Your task to perform on an android device: Go to accessibility settings Image 0: 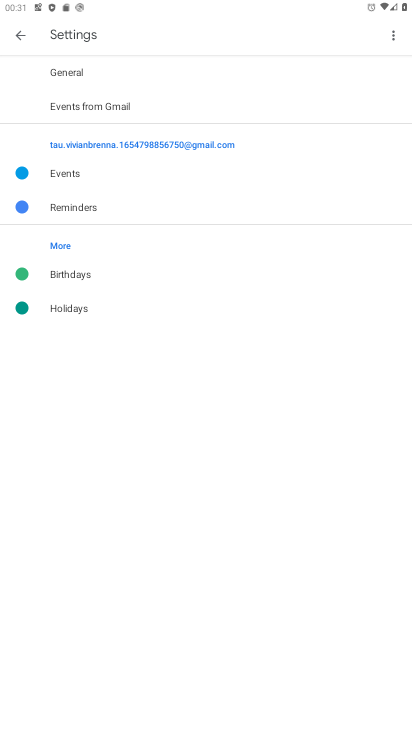
Step 0: click (86, 425)
Your task to perform on an android device: Go to accessibility settings Image 1: 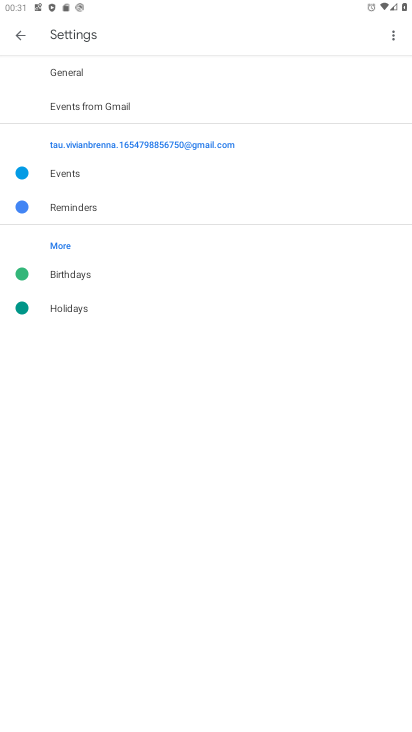
Step 1: drag from (182, 7) to (307, 711)
Your task to perform on an android device: Go to accessibility settings Image 2: 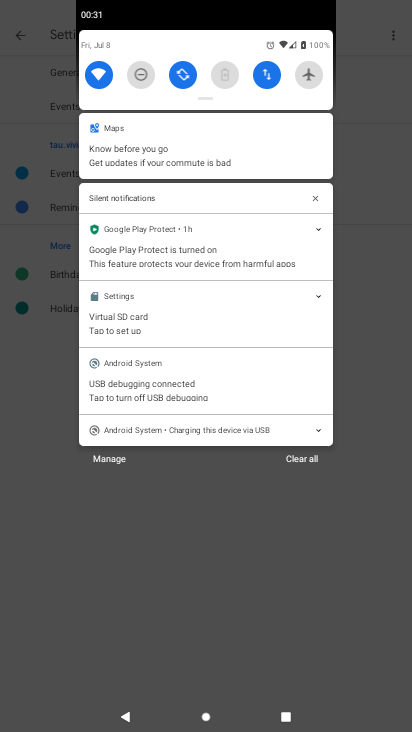
Step 2: drag from (214, 45) to (80, 676)
Your task to perform on an android device: Go to accessibility settings Image 3: 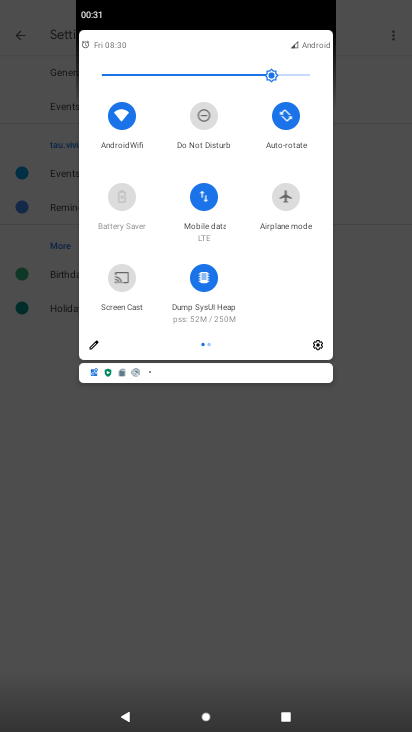
Step 3: click (327, 345)
Your task to perform on an android device: Go to accessibility settings Image 4: 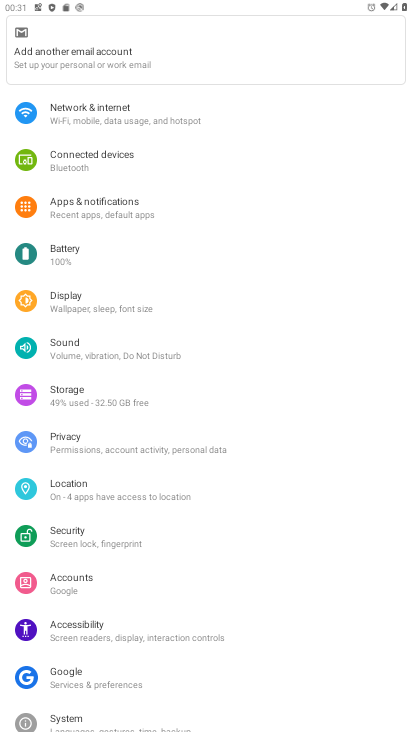
Step 4: click (101, 632)
Your task to perform on an android device: Go to accessibility settings Image 5: 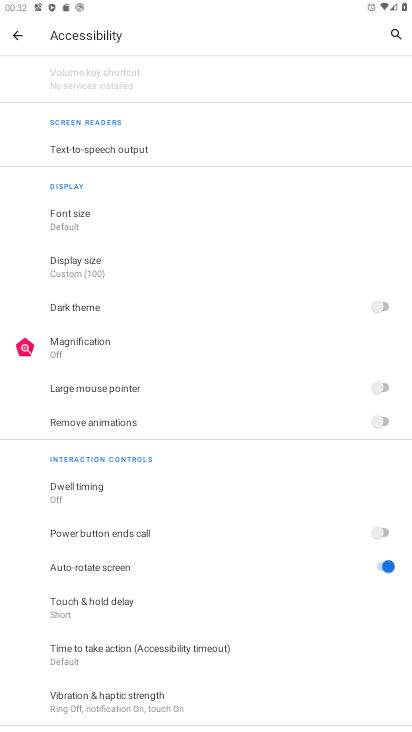
Step 5: task complete